Your task to perform on an android device: turn pop-ups off in chrome Image 0: 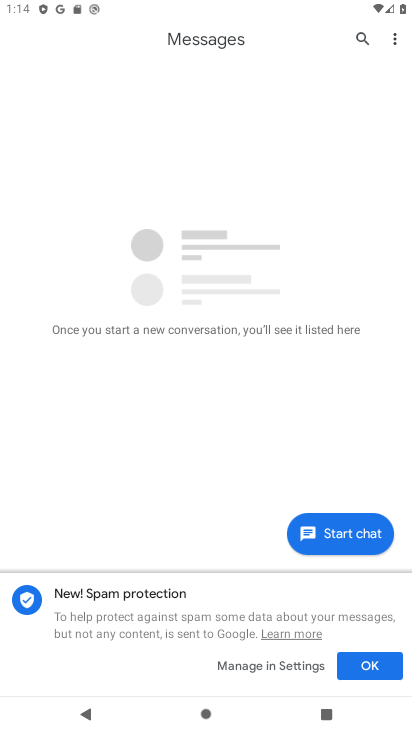
Step 0: press home button
Your task to perform on an android device: turn pop-ups off in chrome Image 1: 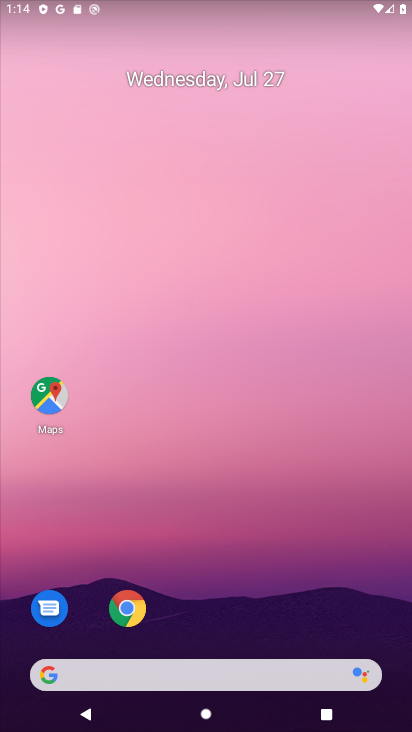
Step 1: click (129, 604)
Your task to perform on an android device: turn pop-ups off in chrome Image 2: 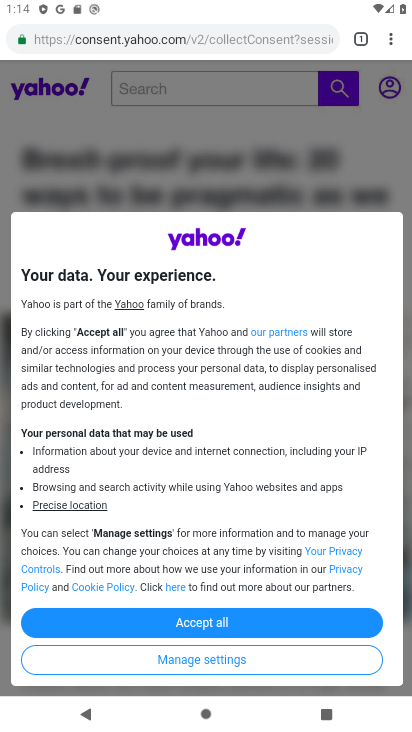
Step 2: click (387, 34)
Your task to perform on an android device: turn pop-ups off in chrome Image 3: 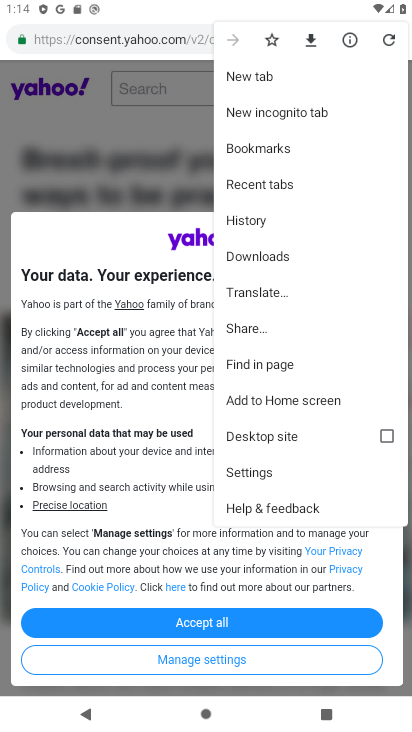
Step 3: click (245, 468)
Your task to perform on an android device: turn pop-ups off in chrome Image 4: 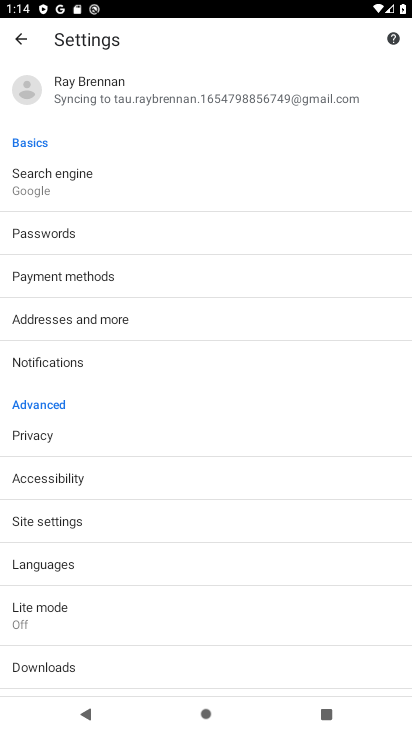
Step 4: click (40, 524)
Your task to perform on an android device: turn pop-ups off in chrome Image 5: 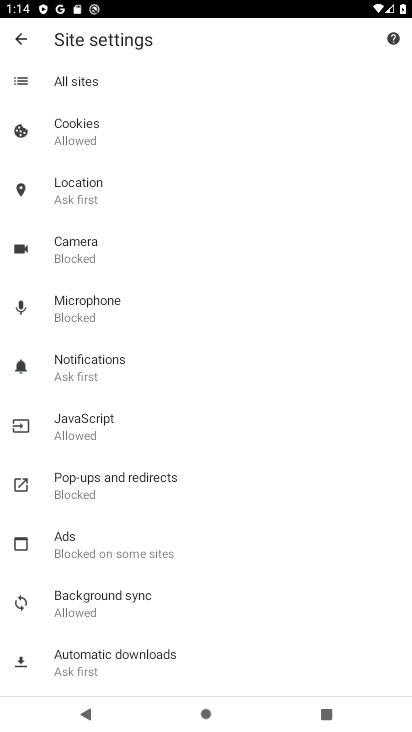
Step 5: click (107, 497)
Your task to perform on an android device: turn pop-ups off in chrome Image 6: 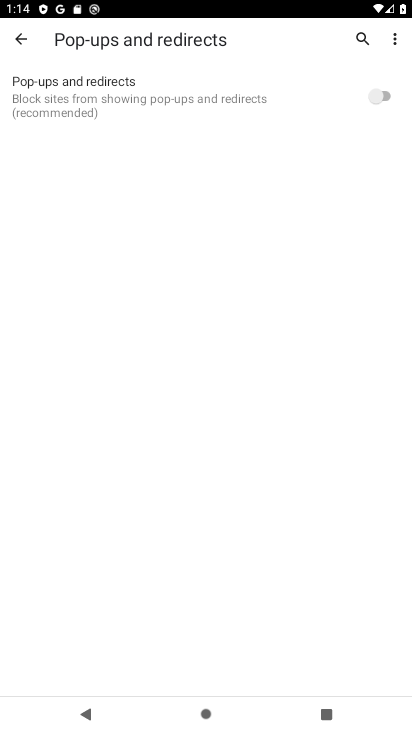
Step 6: task complete